Your task to perform on an android device: What's on my calendar today? Image 0: 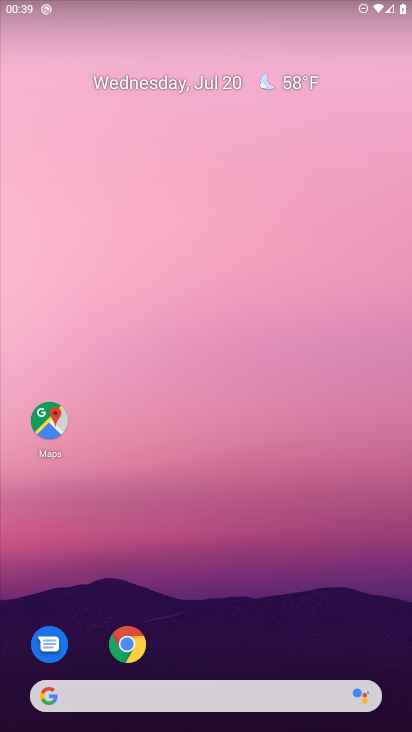
Step 0: click (254, 22)
Your task to perform on an android device: What's on my calendar today? Image 1: 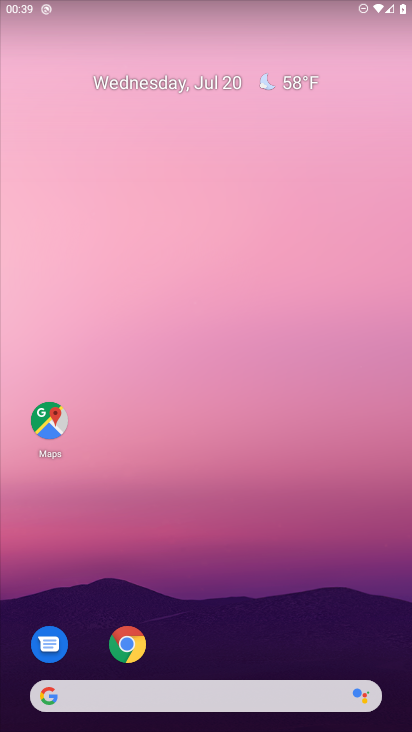
Step 1: drag from (23, 700) to (173, 31)
Your task to perform on an android device: What's on my calendar today? Image 2: 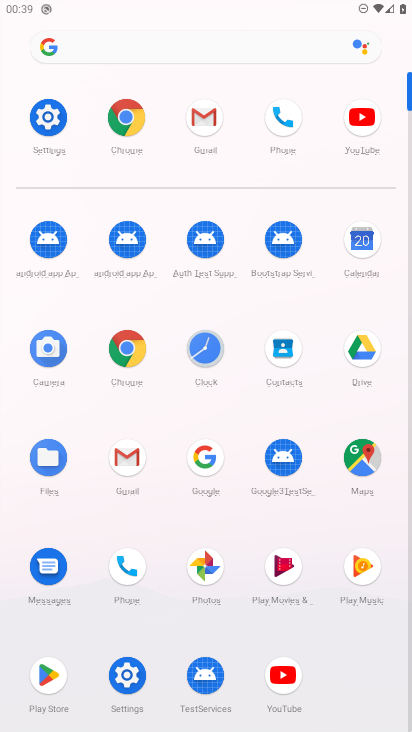
Step 2: click (359, 240)
Your task to perform on an android device: What's on my calendar today? Image 3: 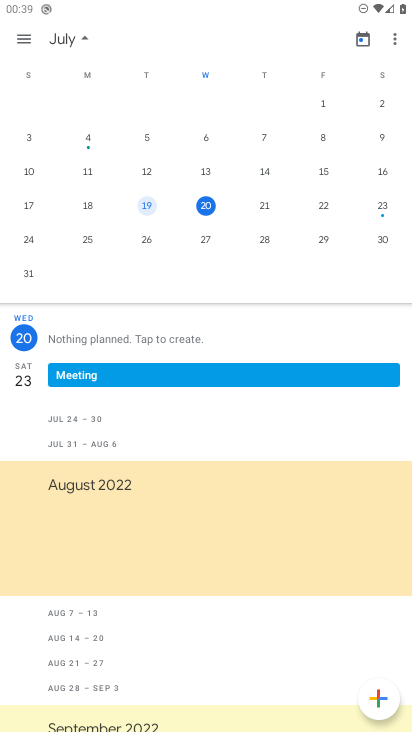
Step 3: task complete